Your task to perform on an android device: open app "Duolingo: language lessons" Image 0: 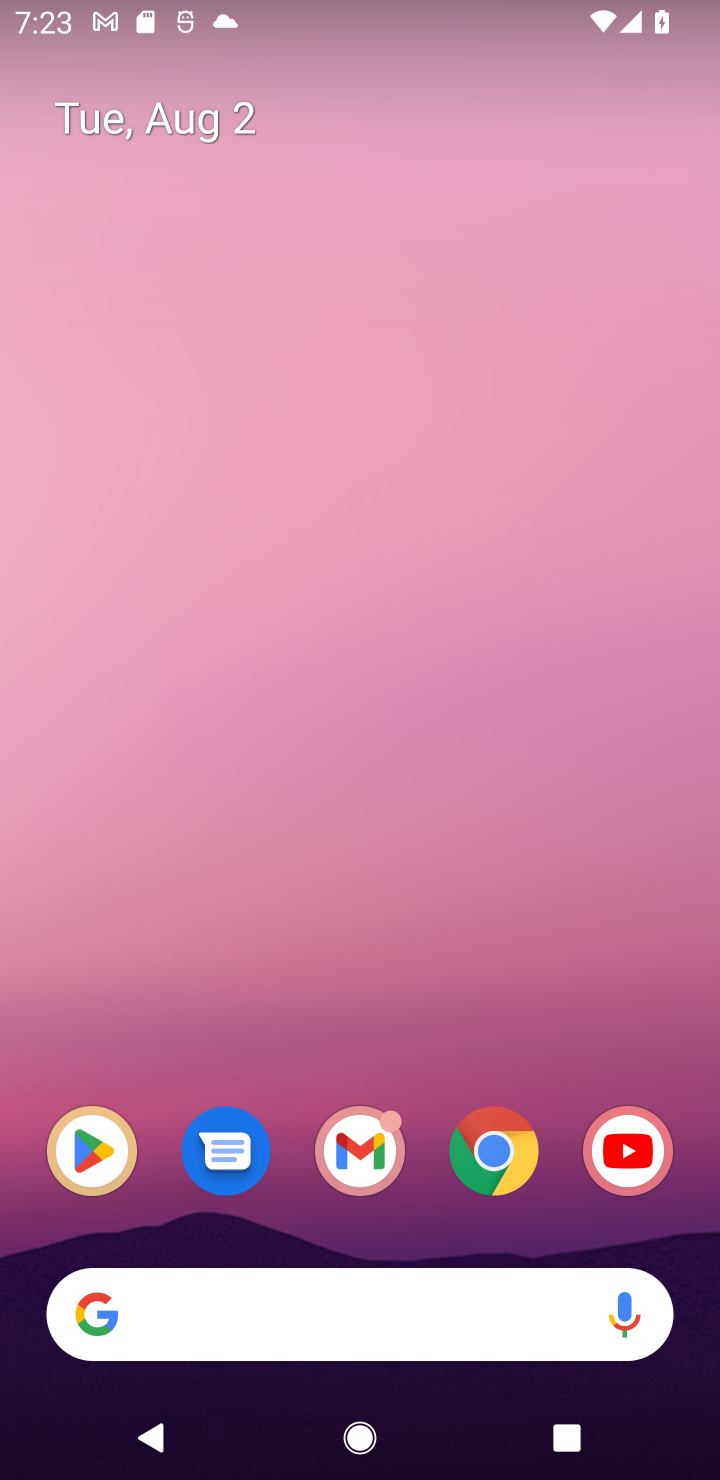
Step 0: click (114, 1166)
Your task to perform on an android device: open app "Duolingo: language lessons" Image 1: 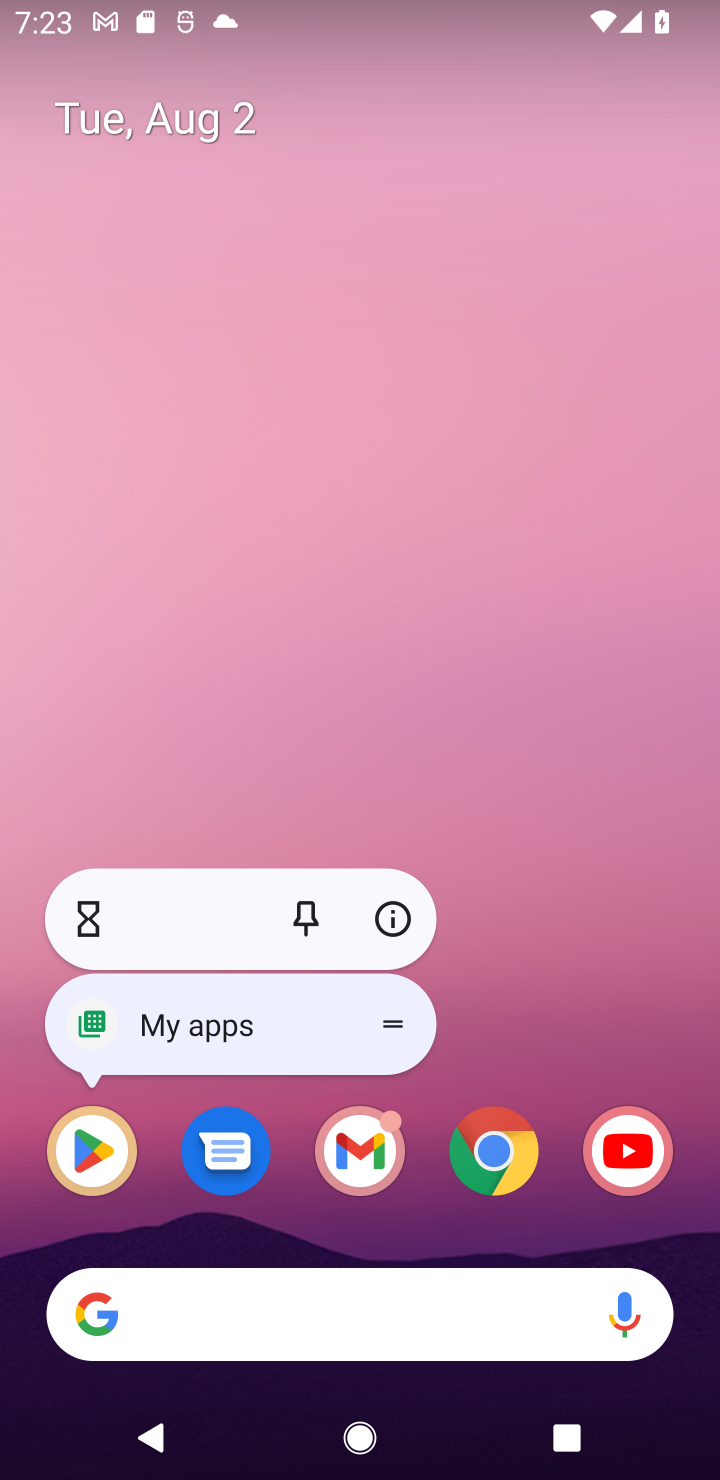
Step 1: click (112, 1156)
Your task to perform on an android device: open app "Duolingo: language lessons" Image 2: 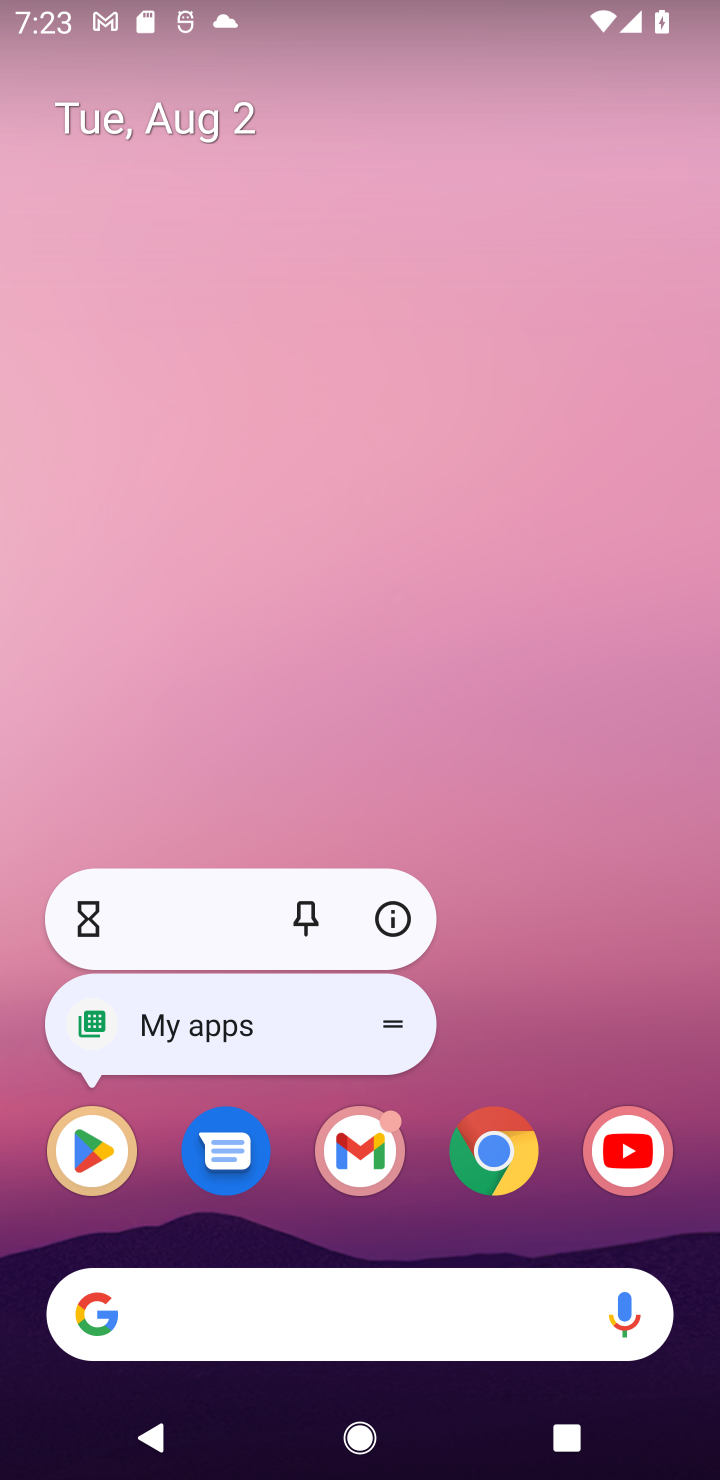
Step 2: click (95, 1157)
Your task to perform on an android device: open app "Duolingo: language lessons" Image 3: 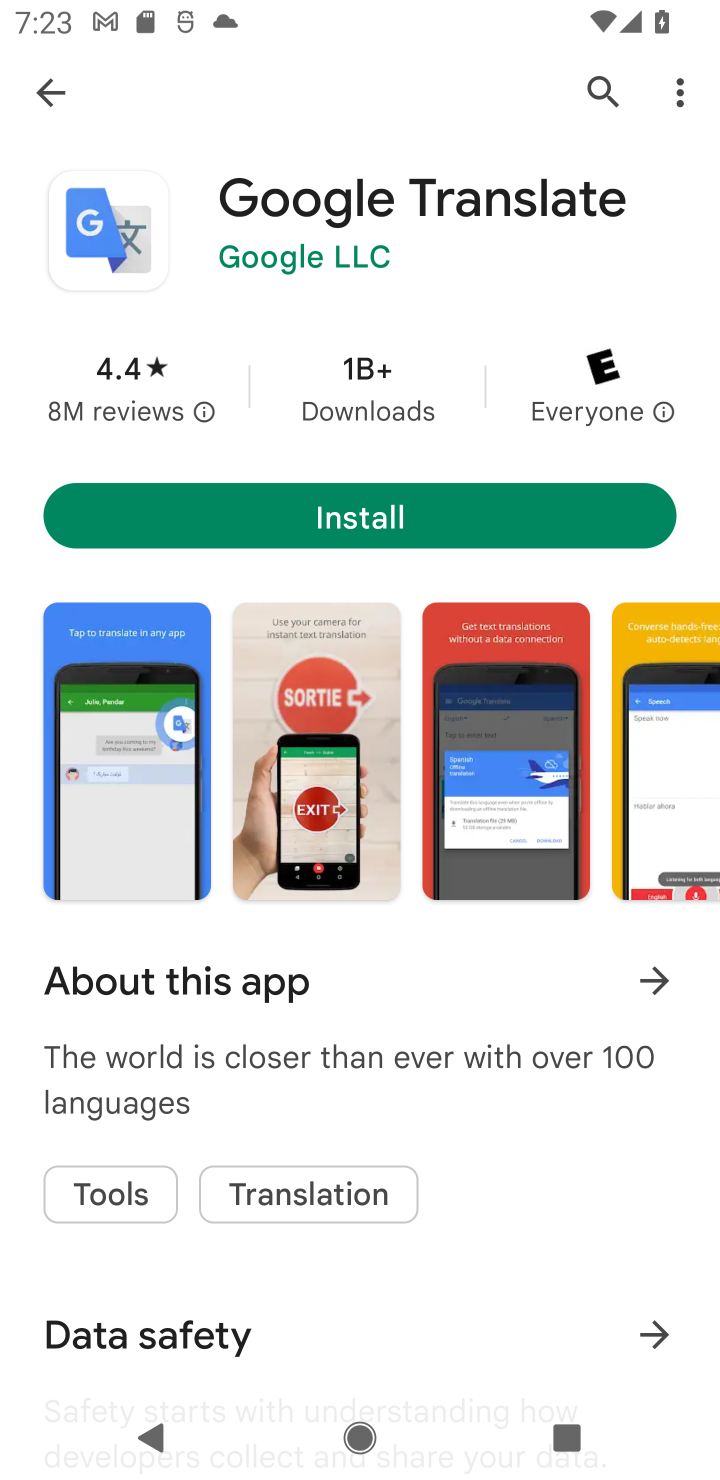
Step 3: click (592, 70)
Your task to perform on an android device: open app "Duolingo: language lessons" Image 4: 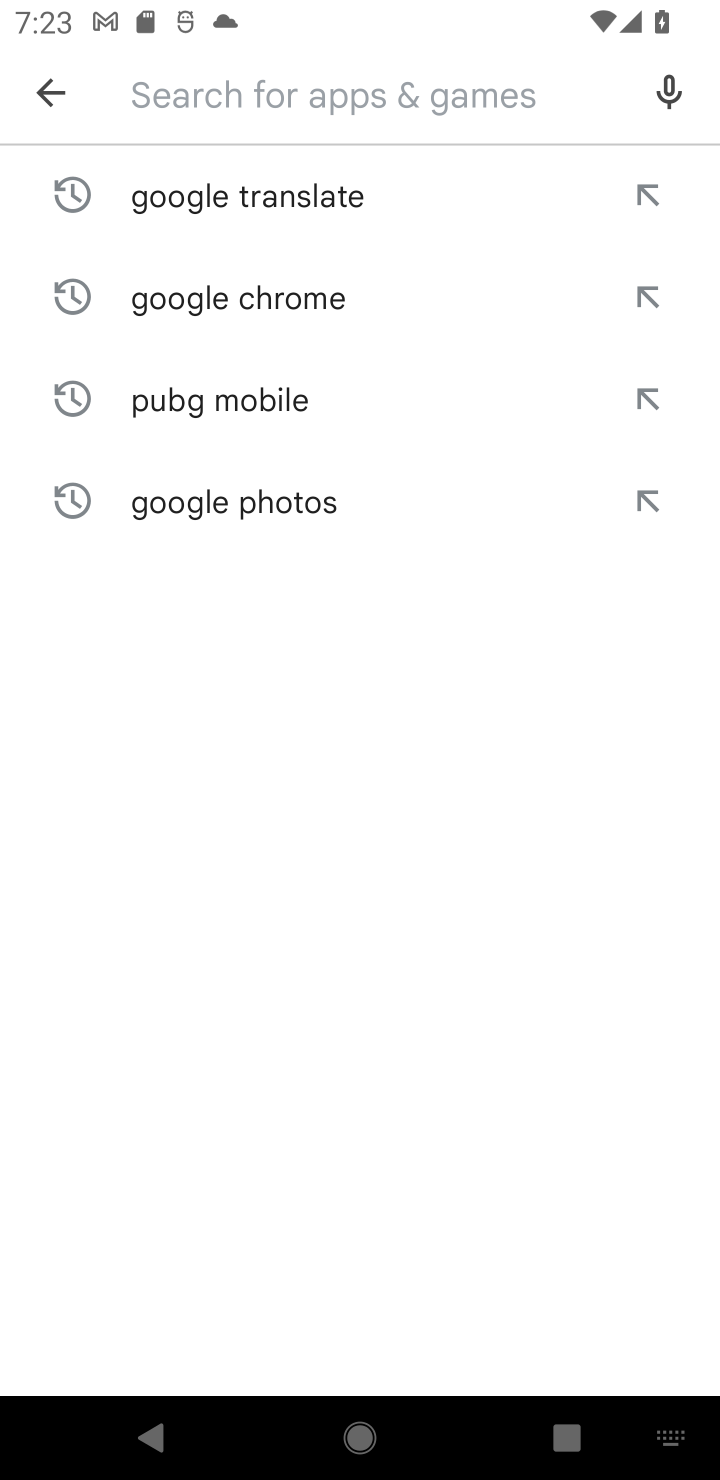
Step 4: type "Duolingo: language lessons"
Your task to perform on an android device: open app "Duolingo: language lessons" Image 5: 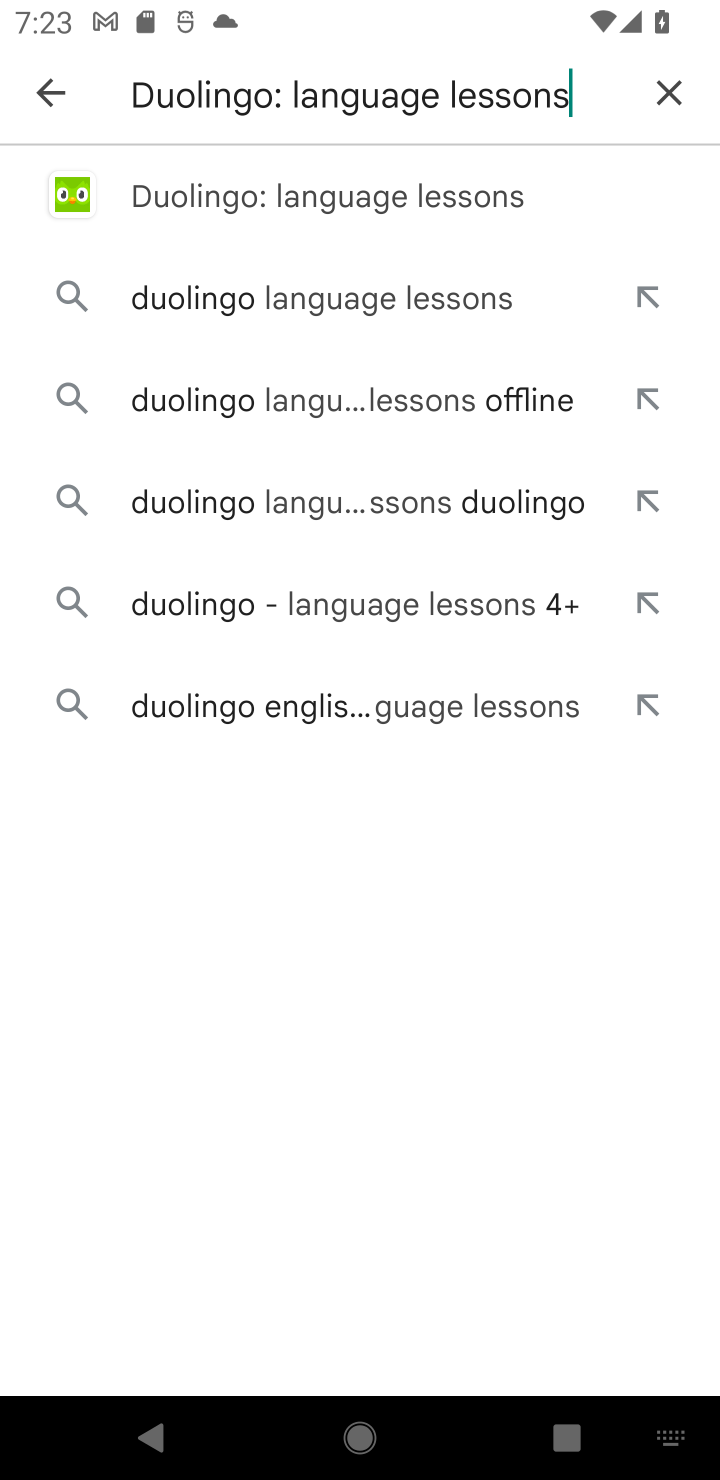
Step 5: click (438, 213)
Your task to perform on an android device: open app "Duolingo: language lessons" Image 6: 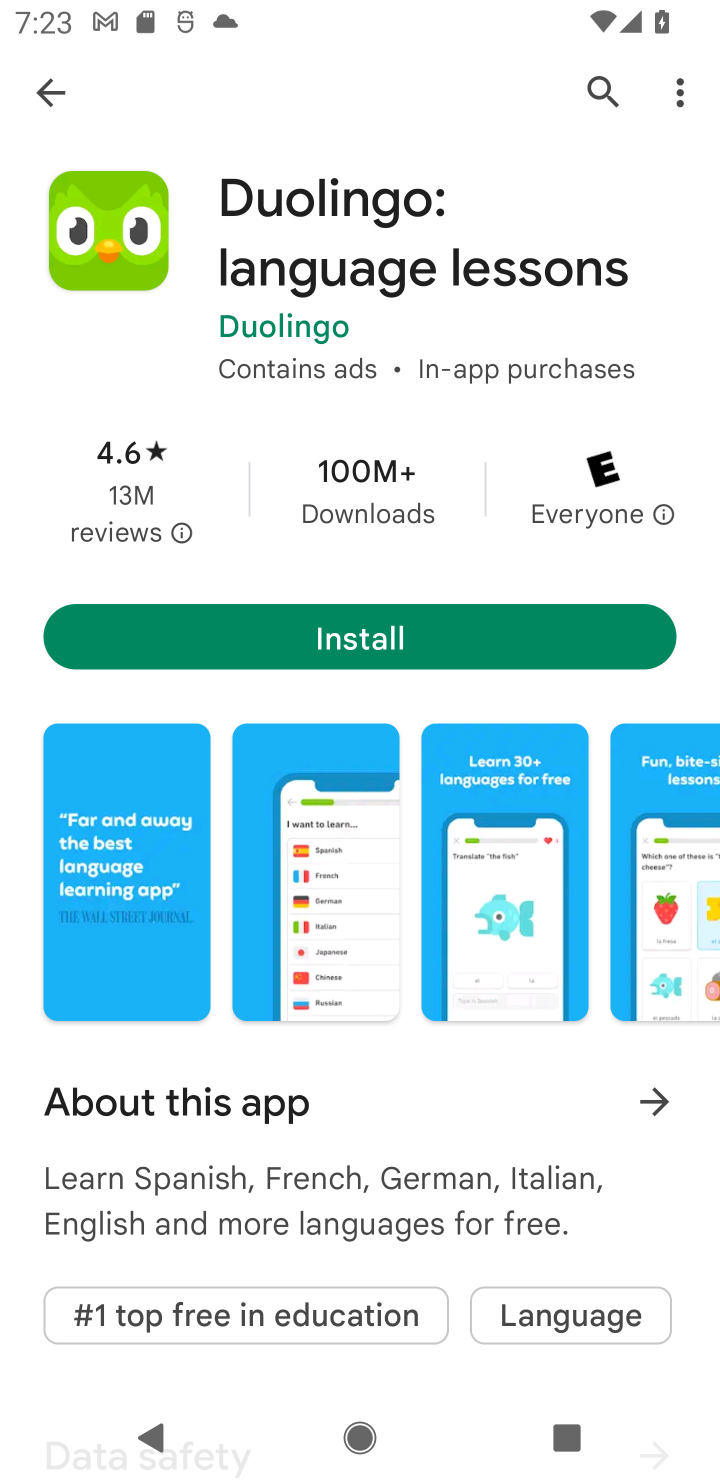
Step 6: task complete